Your task to perform on an android device: Go to notification settings Image 0: 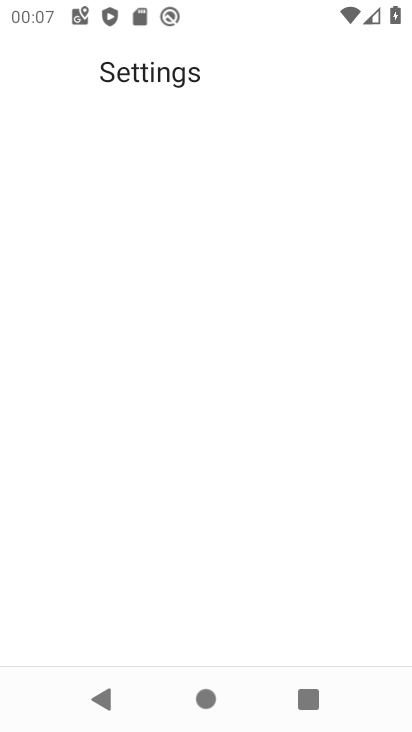
Step 0: drag from (211, 541) to (199, 0)
Your task to perform on an android device: Go to notification settings Image 1: 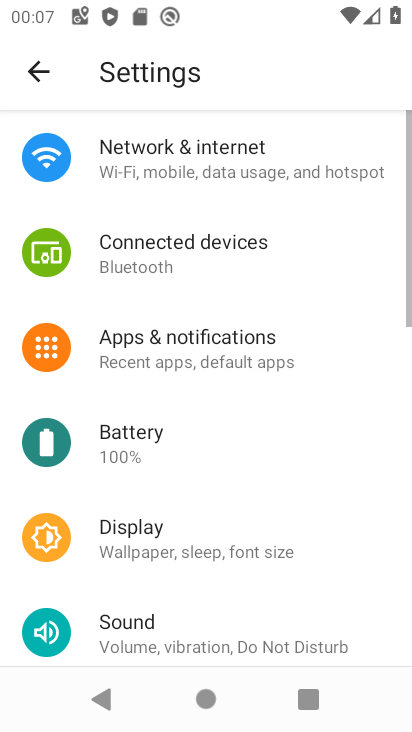
Step 1: press home button
Your task to perform on an android device: Go to notification settings Image 2: 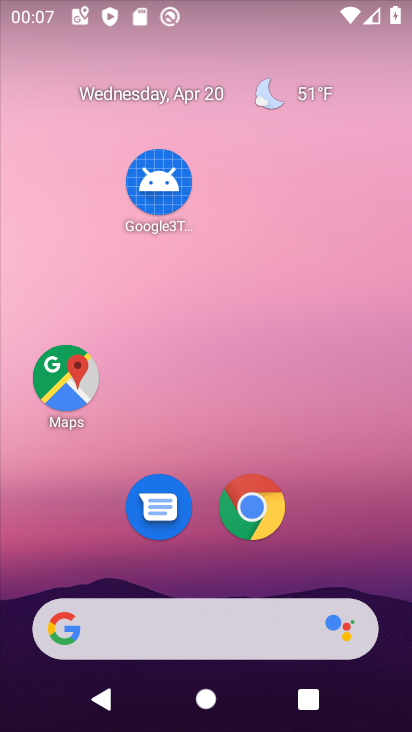
Step 2: drag from (219, 583) to (175, 0)
Your task to perform on an android device: Go to notification settings Image 3: 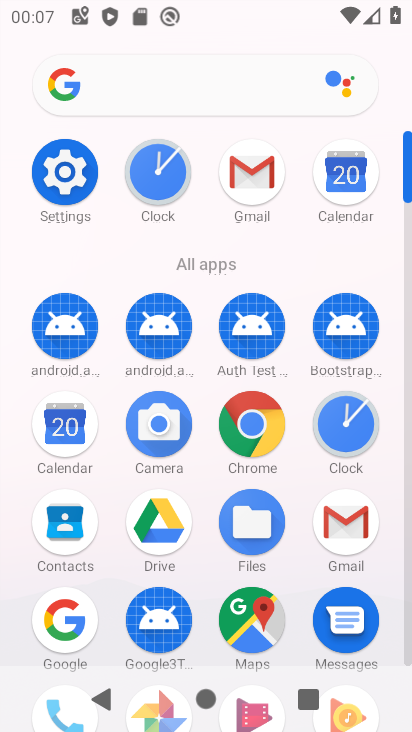
Step 3: click (67, 173)
Your task to perform on an android device: Go to notification settings Image 4: 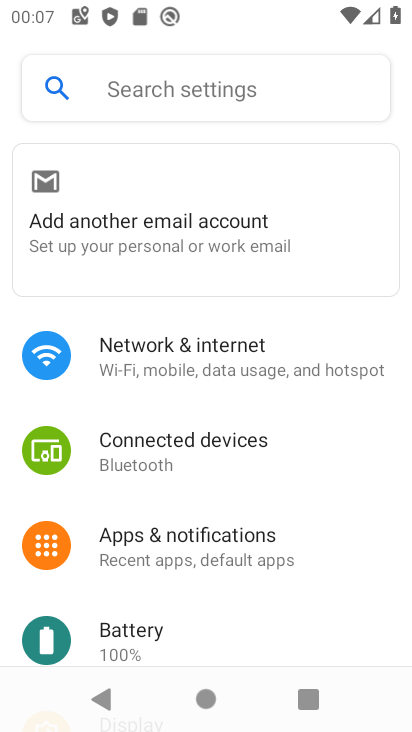
Step 4: click (205, 526)
Your task to perform on an android device: Go to notification settings Image 5: 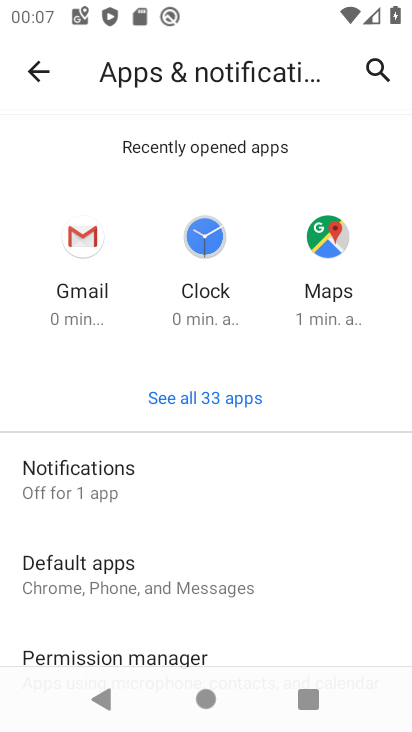
Step 5: click (72, 470)
Your task to perform on an android device: Go to notification settings Image 6: 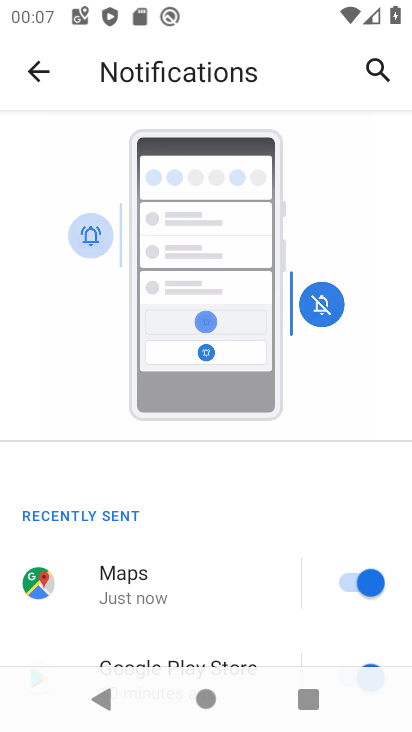
Step 6: task complete